Your task to perform on an android device: toggle notification dots Image 0: 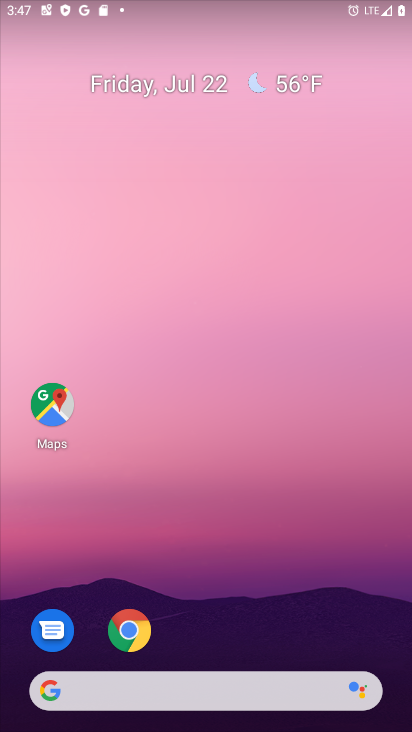
Step 0: drag from (232, 695) to (209, 202)
Your task to perform on an android device: toggle notification dots Image 1: 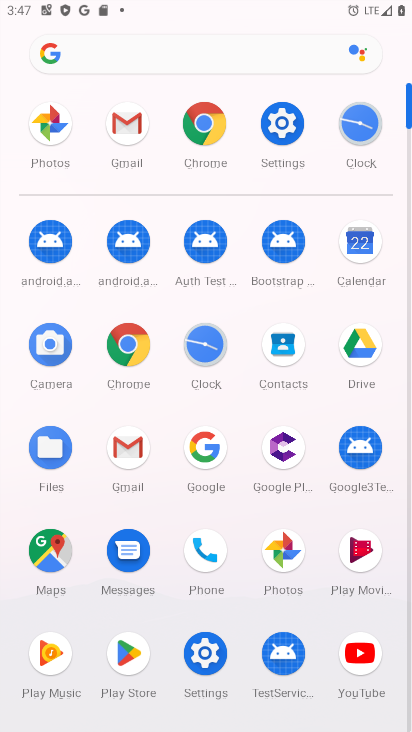
Step 1: click (273, 149)
Your task to perform on an android device: toggle notification dots Image 2: 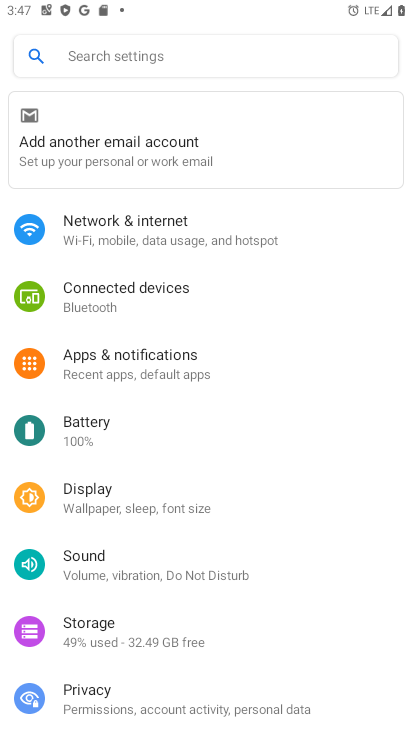
Step 2: click (149, 366)
Your task to perform on an android device: toggle notification dots Image 3: 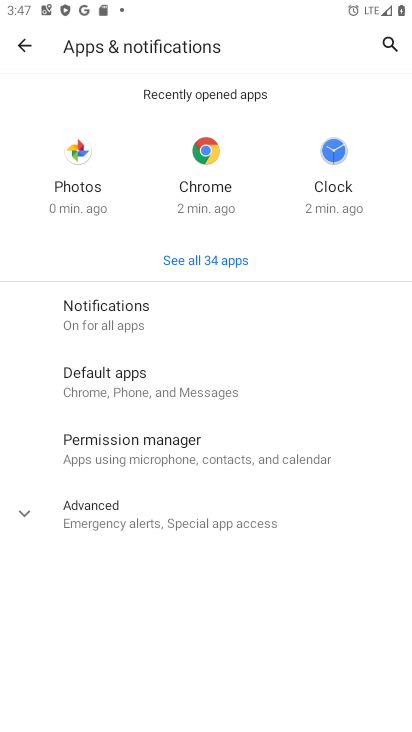
Step 3: click (128, 325)
Your task to perform on an android device: toggle notification dots Image 4: 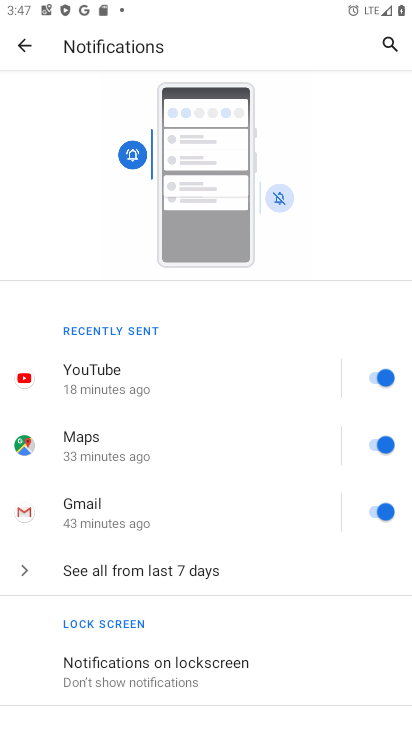
Step 4: drag from (159, 648) to (114, 337)
Your task to perform on an android device: toggle notification dots Image 5: 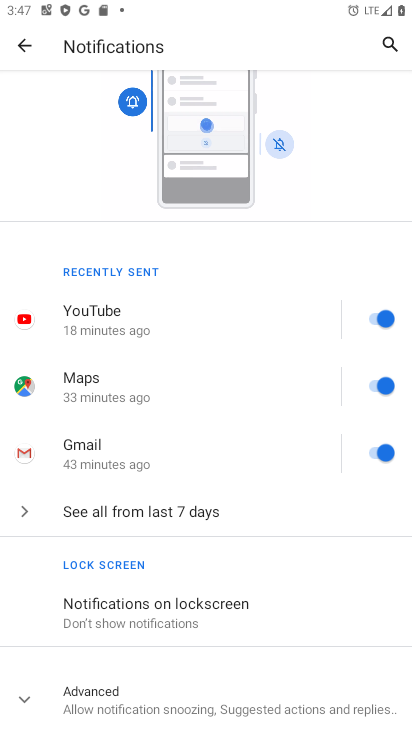
Step 5: click (145, 683)
Your task to perform on an android device: toggle notification dots Image 6: 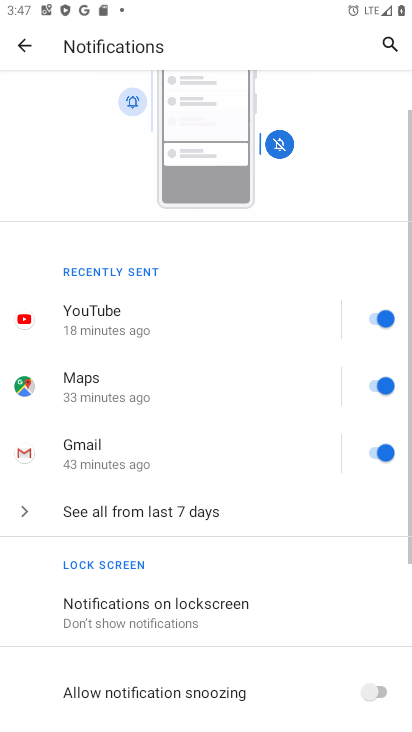
Step 6: drag from (178, 631) to (148, 277)
Your task to perform on an android device: toggle notification dots Image 7: 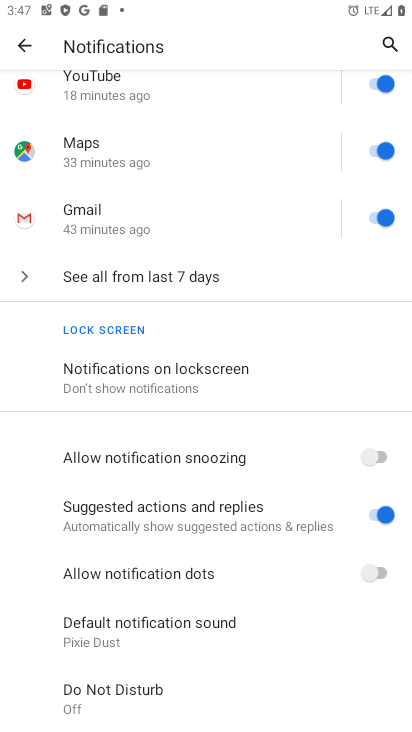
Step 7: click (374, 576)
Your task to perform on an android device: toggle notification dots Image 8: 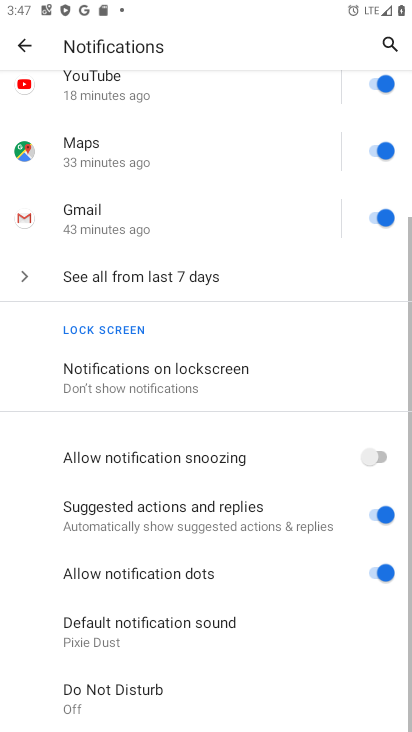
Step 8: task complete